Your task to perform on an android device: Go to Yahoo.com Image 0: 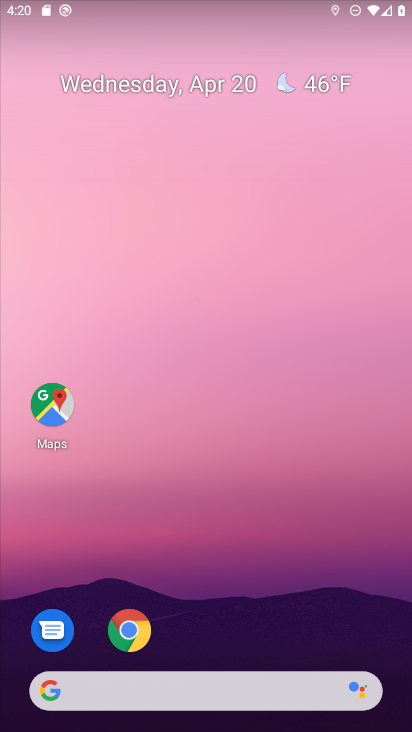
Step 0: drag from (267, 668) to (250, 0)
Your task to perform on an android device: Go to Yahoo.com Image 1: 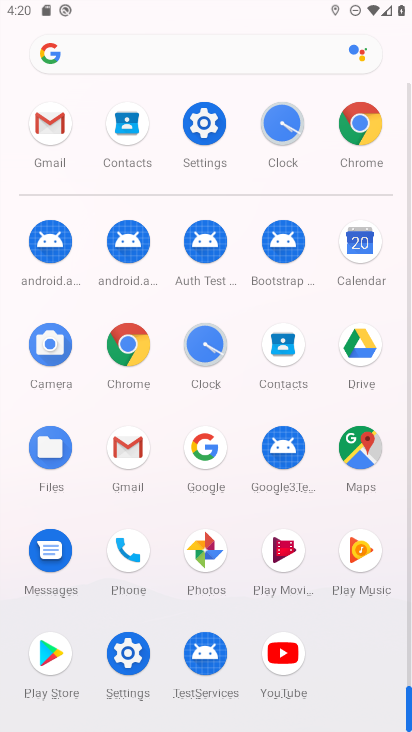
Step 1: click (127, 366)
Your task to perform on an android device: Go to Yahoo.com Image 2: 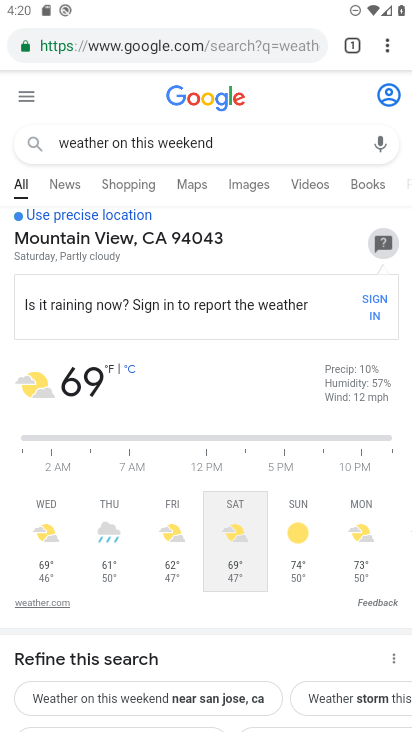
Step 2: click (304, 47)
Your task to perform on an android device: Go to Yahoo.com Image 3: 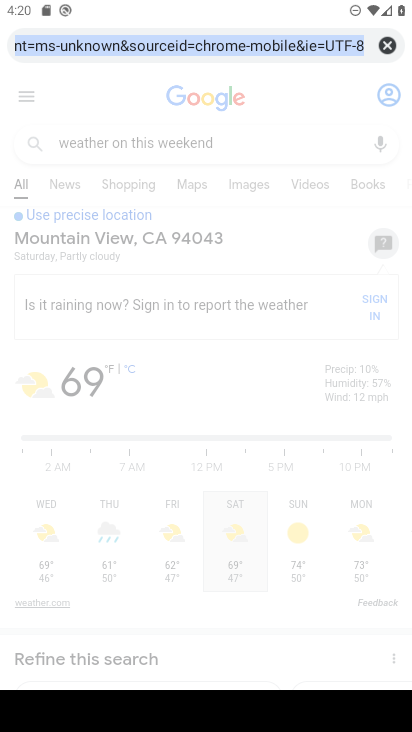
Step 3: click (380, 45)
Your task to perform on an android device: Go to Yahoo.com Image 4: 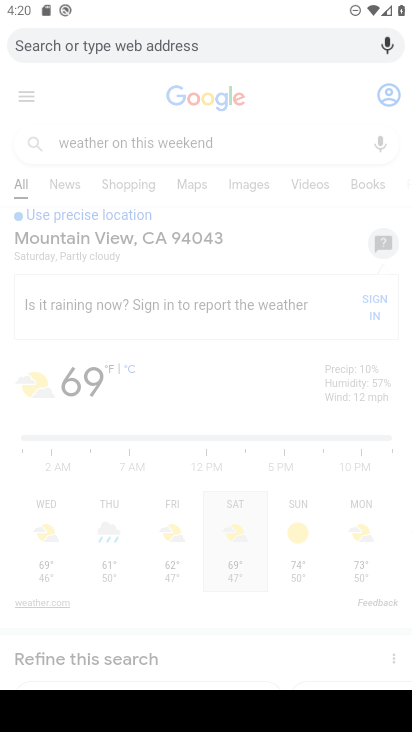
Step 4: type "yahoo.com"
Your task to perform on an android device: Go to Yahoo.com Image 5: 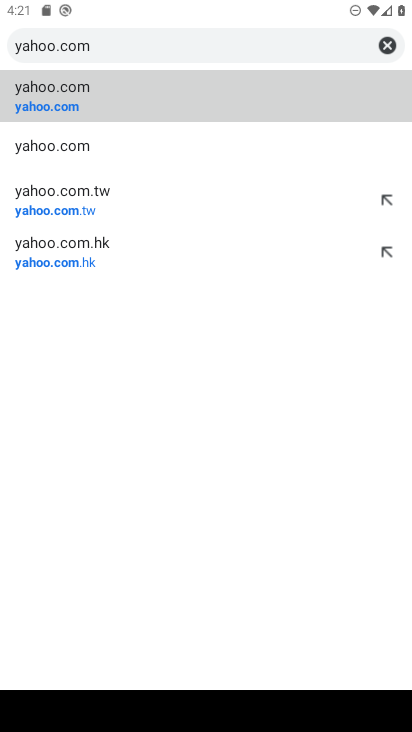
Step 5: click (100, 105)
Your task to perform on an android device: Go to Yahoo.com Image 6: 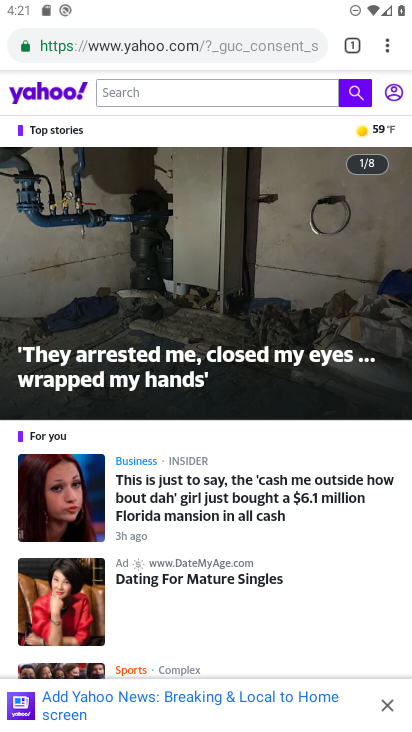
Step 6: task complete